Your task to perform on an android device: turn pop-ups off in chrome Image 0: 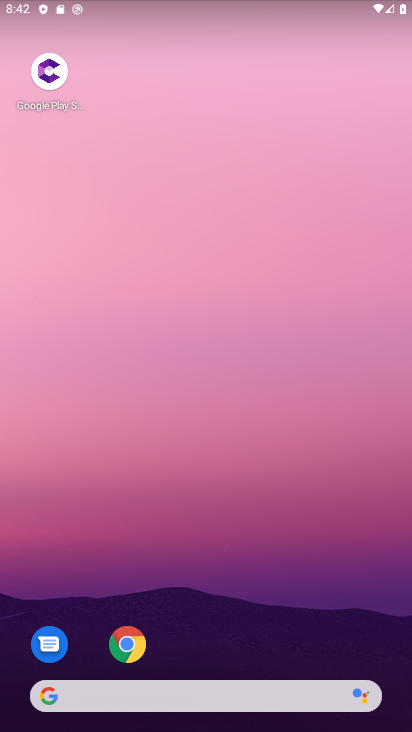
Step 0: drag from (197, 647) to (296, 59)
Your task to perform on an android device: turn pop-ups off in chrome Image 1: 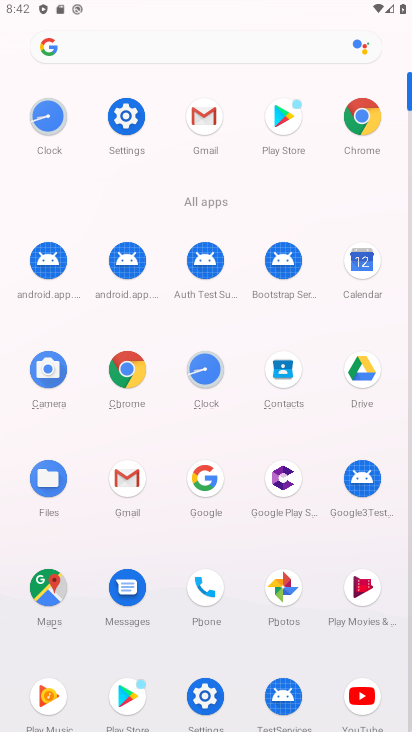
Step 1: click (144, 366)
Your task to perform on an android device: turn pop-ups off in chrome Image 2: 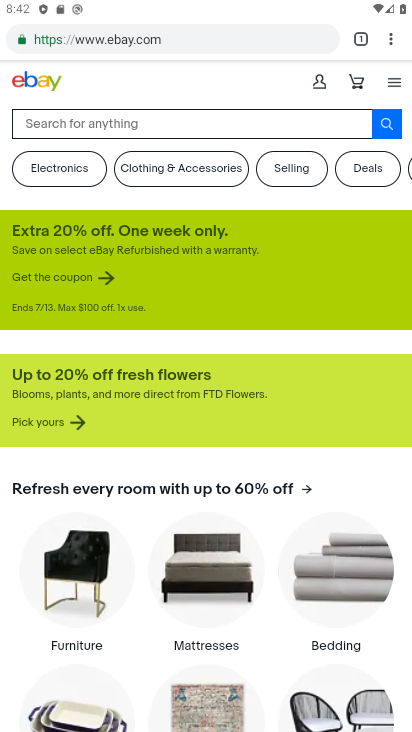
Step 2: drag from (390, 45) to (256, 471)
Your task to perform on an android device: turn pop-ups off in chrome Image 3: 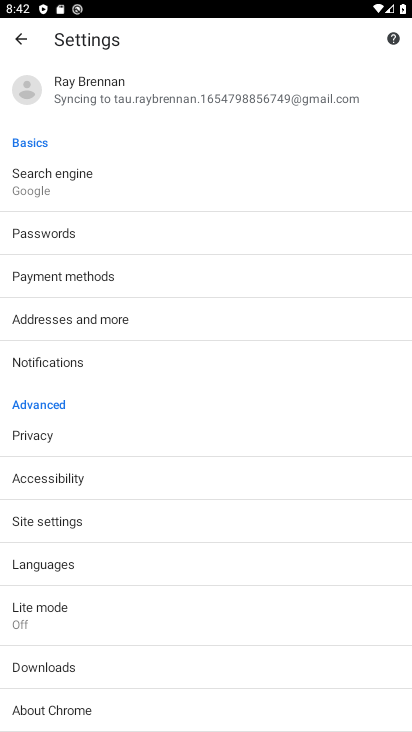
Step 3: click (97, 531)
Your task to perform on an android device: turn pop-ups off in chrome Image 4: 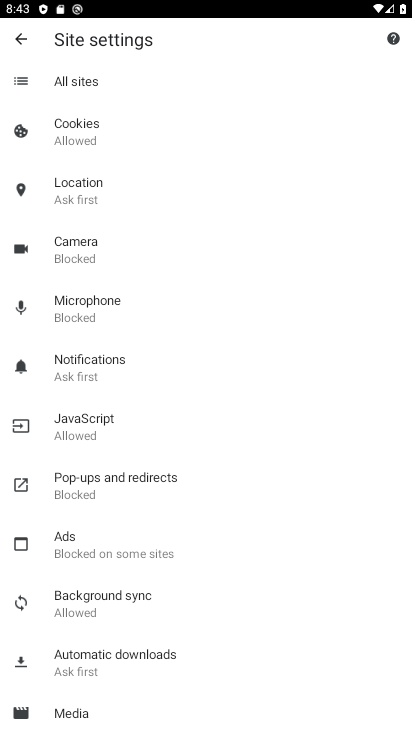
Step 4: click (152, 485)
Your task to perform on an android device: turn pop-ups off in chrome Image 5: 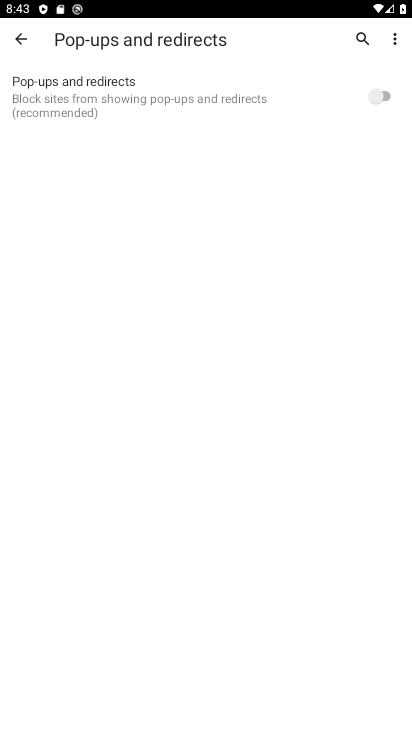
Step 5: task complete